Your task to perform on an android device: Is it going to rain this weekend? Image 0: 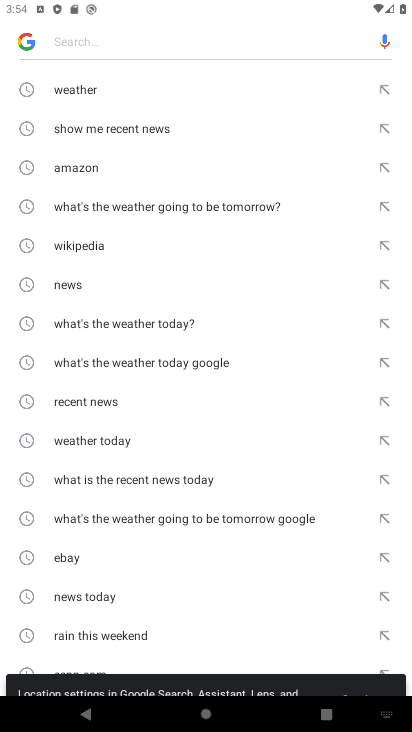
Step 0: press home button
Your task to perform on an android device: Is it going to rain this weekend? Image 1: 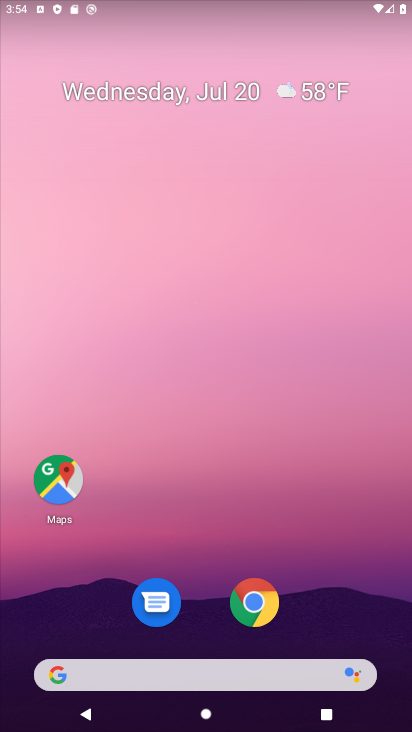
Step 1: drag from (205, 627) to (176, 152)
Your task to perform on an android device: Is it going to rain this weekend? Image 2: 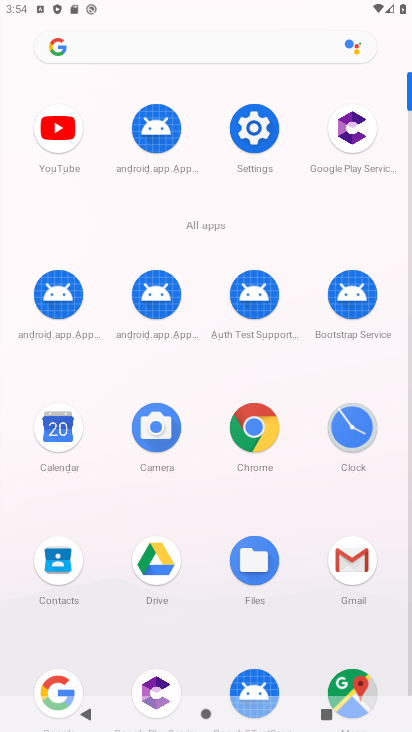
Step 2: drag from (202, 622) to (203, 315)
Your task to perform on an android device: Is it going to rain this weekend? Image 3: 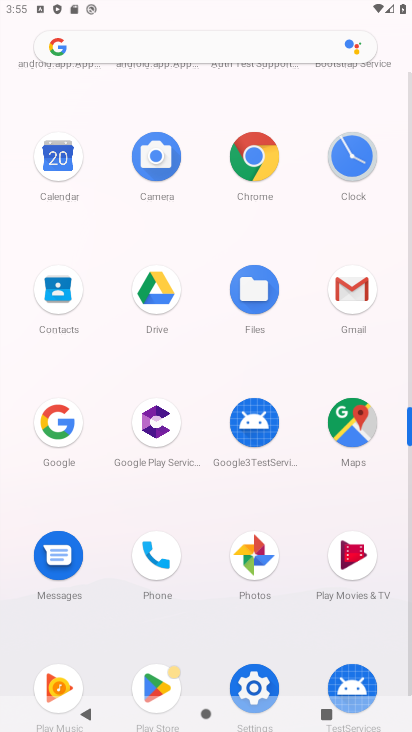
Step 3: drag from (265, 355) to (210, 300)
Your task to perform on an android device: Is it going to rain this weekend? Image 4: 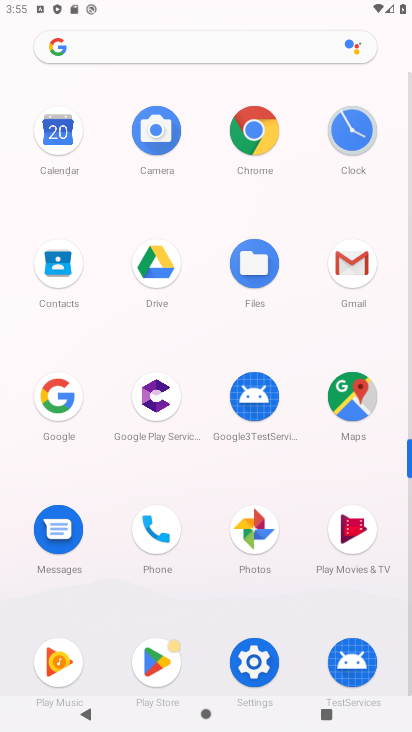
Step 4: click (52, 389)
Your task to perform on an android device: Is it going to rain this weekend? Image 5: 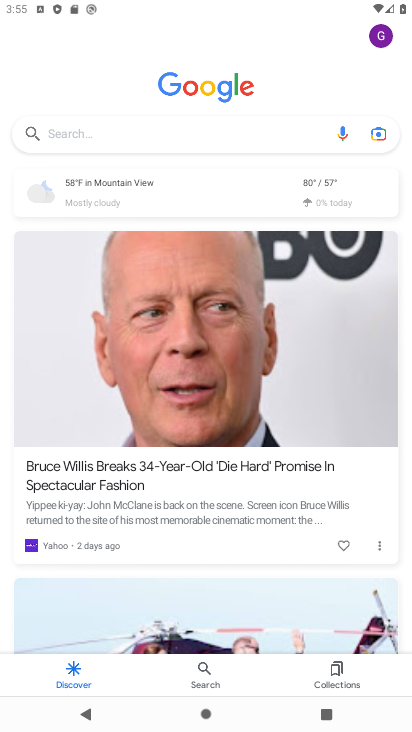
Step 5: click (181, 134)
Your task to perform on an android device: Is it going to rain this weekend? Image 6: 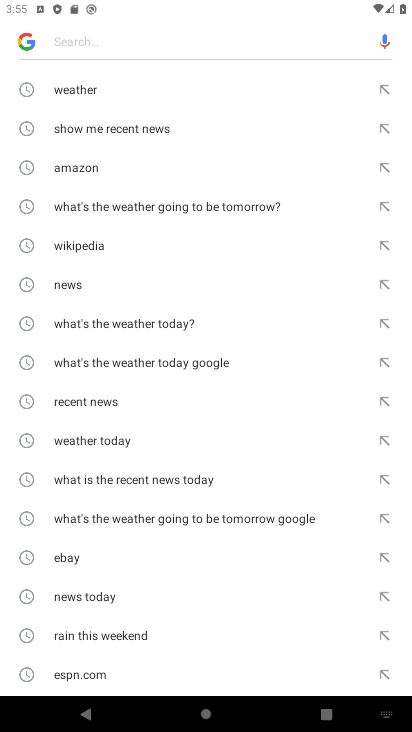
Step 6: click (76, 85)
Your task to perform on an android device: Is it going to rain this weekend? Image 7: 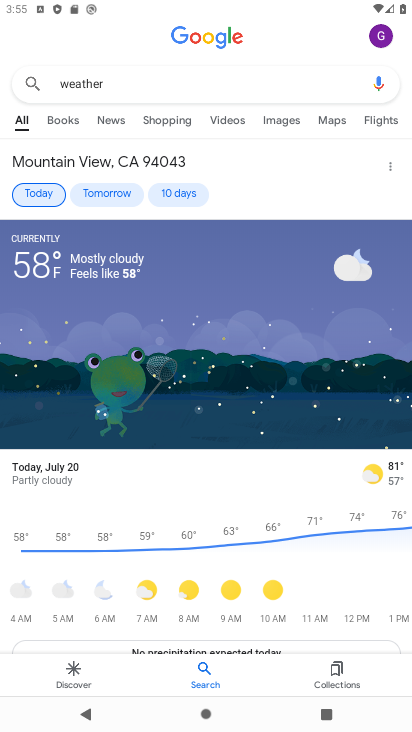
Step 7: click (101, 188)
Your task to perform on an android device: Is it going to rain this weekend? Image 8: 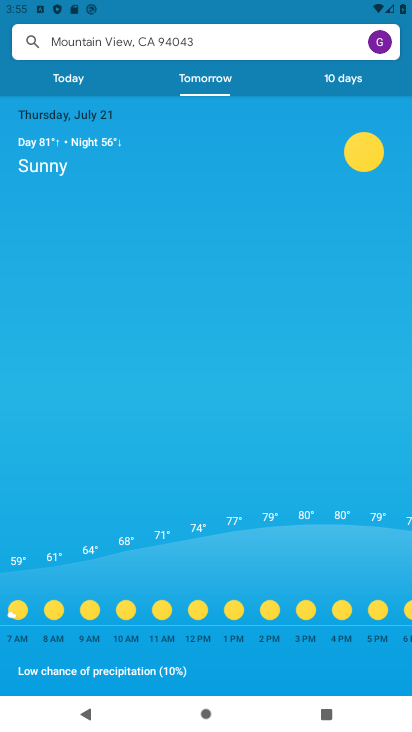
Step 8: click (344, 71)
Your task to perform on an android device: Is it going to rain this weekend? Image 9: 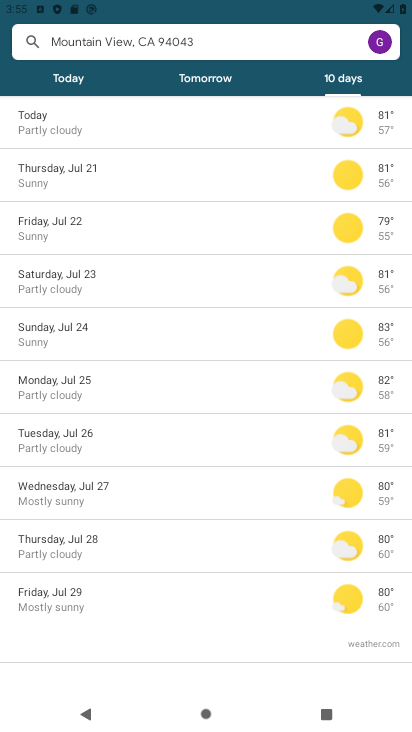
Step 9: task complete